Your task to perform on an android device: turn off smart reply in the gmail app Image 0: 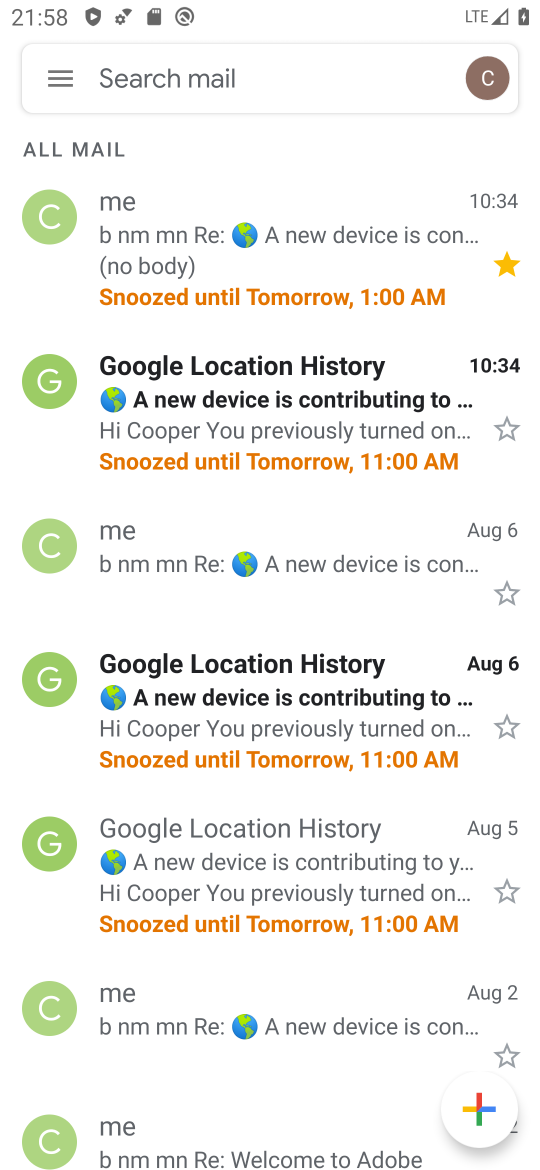
Step 0: click (65, 72)
Your task to perform on an android device: turn off smart reply in the gmail app Image 1: 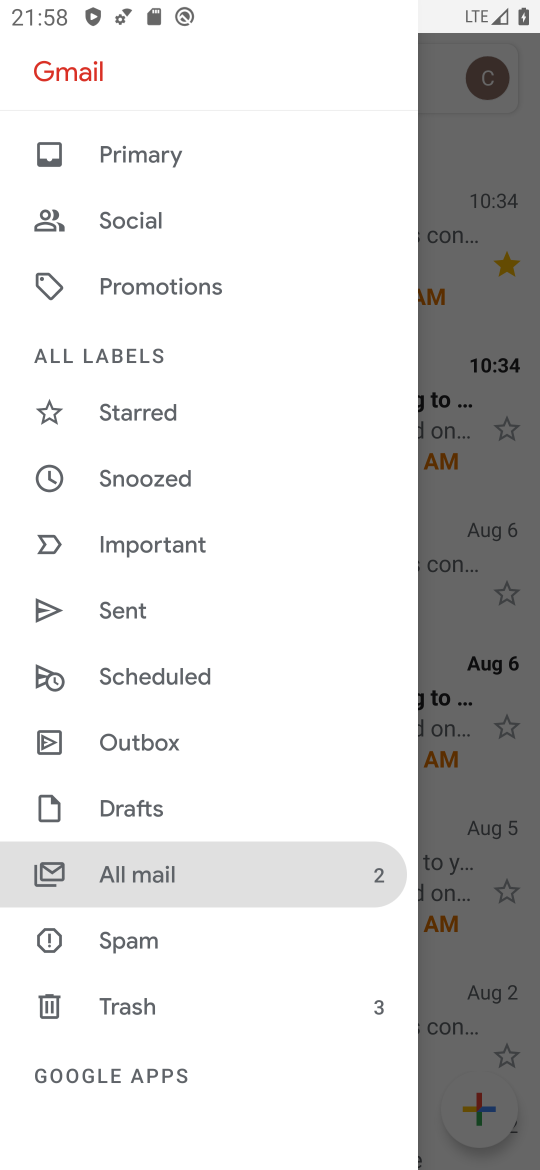
Step 1: drag from (255, 760) to (286, 134)
Your task to perform on an android device: turn off smart reply in the gmail app Image 2: 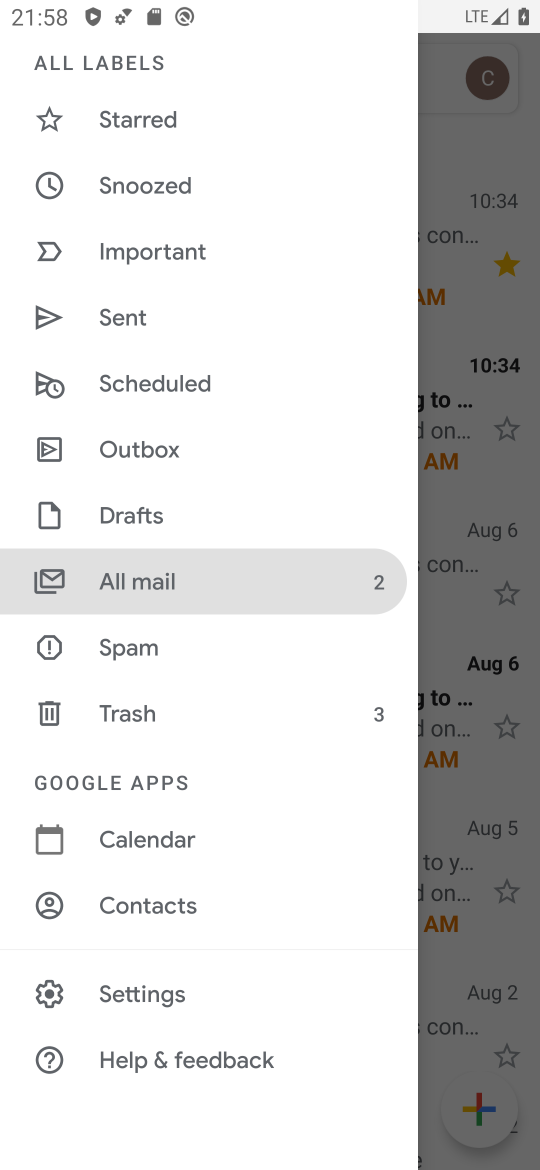
Step 2: click (140, 988)
Your task to perform on an android device: turn off smart reply in the gmail app Image 3: 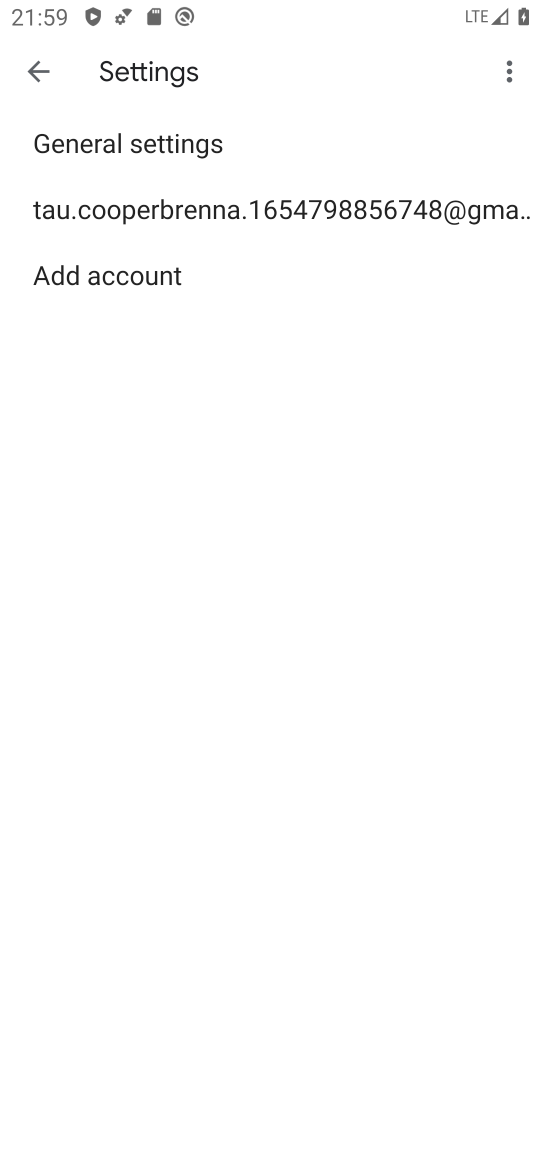
Step 3: click (303, 206)
Your task to perform on an android device: turn off smart reply in the gmail app Image 4: 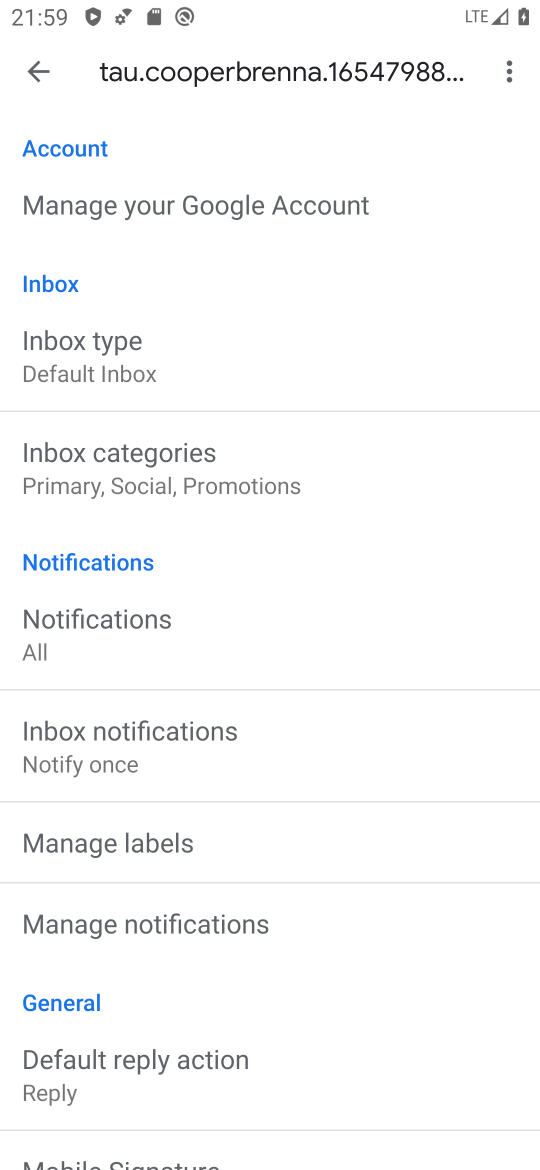
Step 4: drag from (298, 1003) to (374, 1)
Your task to perform on an android device: turn off smart reply in the gmail app Image 5: 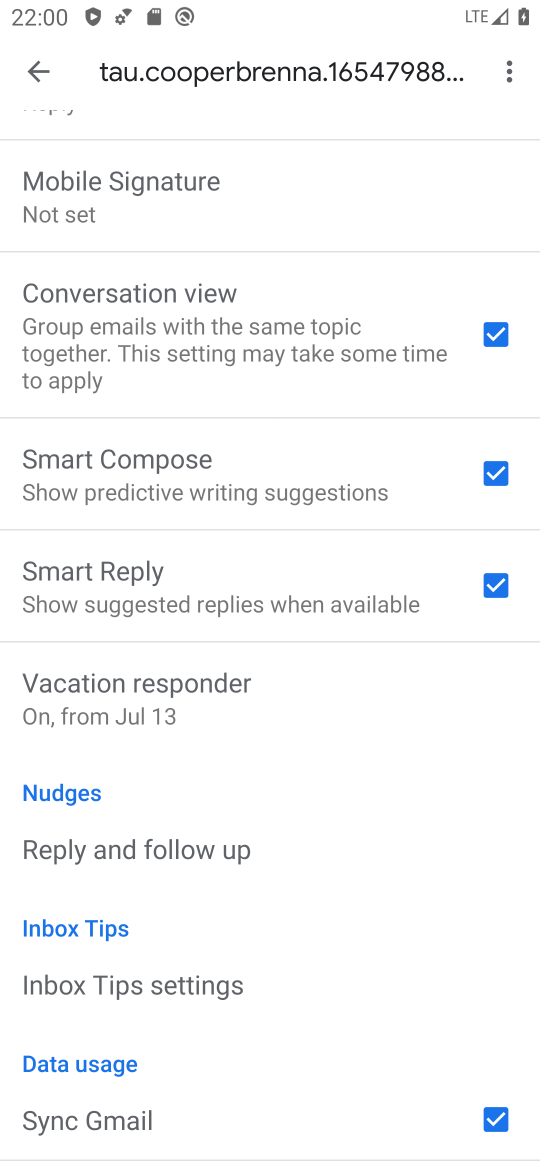
Step 5: click (497, 579)
Your task to perform on an android device: turn off smart reply in the gmail app Image 6: 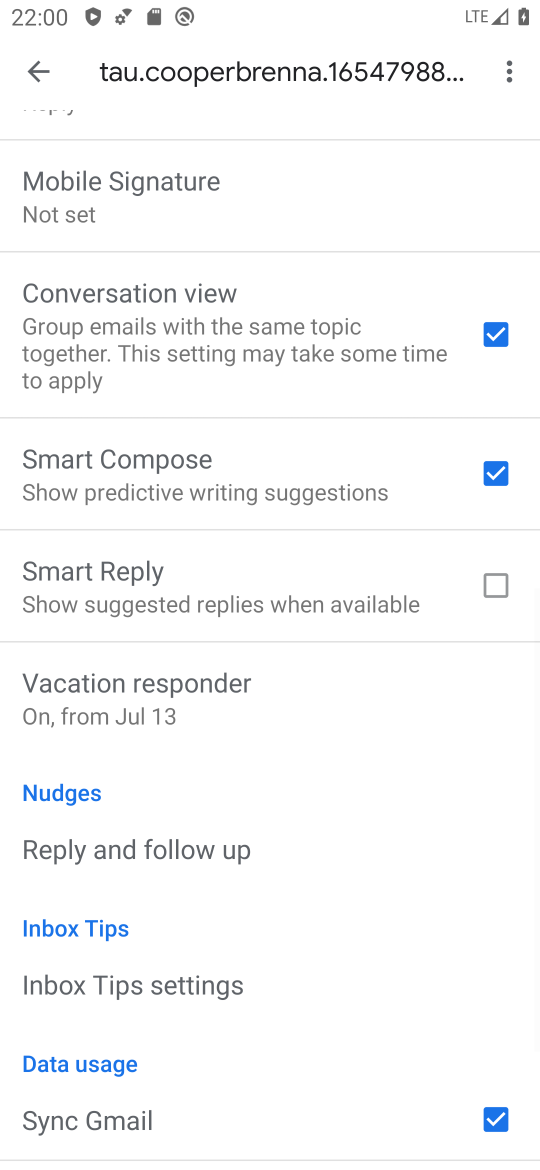
Step 6: task complete